Your task to perform on an android device: Clear the shopping cart on amazon.com. Add macbook to the cart on amazon.com Image 0: 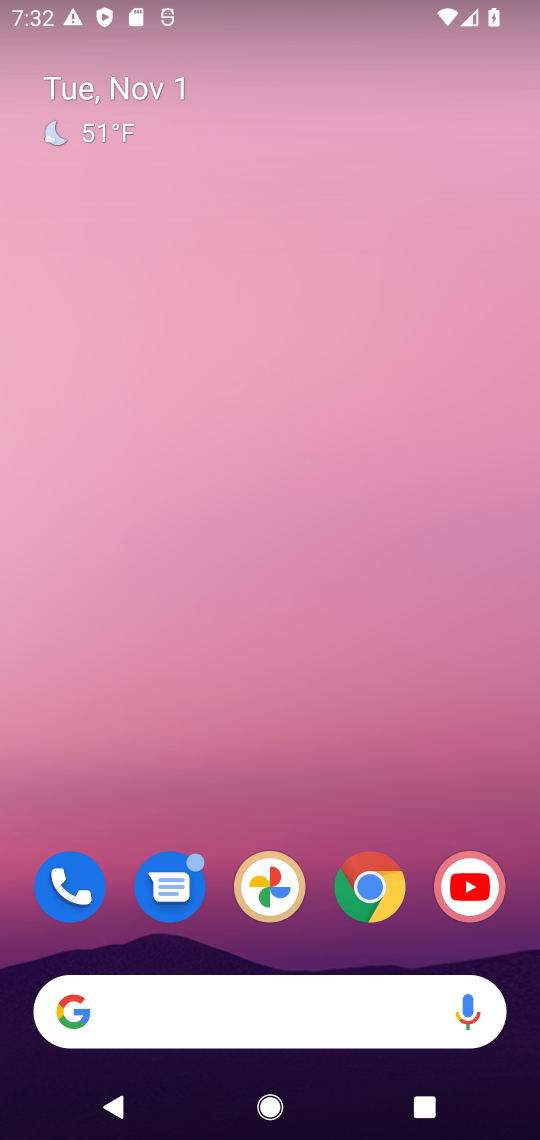
Step 0: drag from (193, 979) to (283, 353)
Your task to perform on an android device: Clear the shopping cart on amazon.com. Add macbook to the cart on amazon.com Image 1: 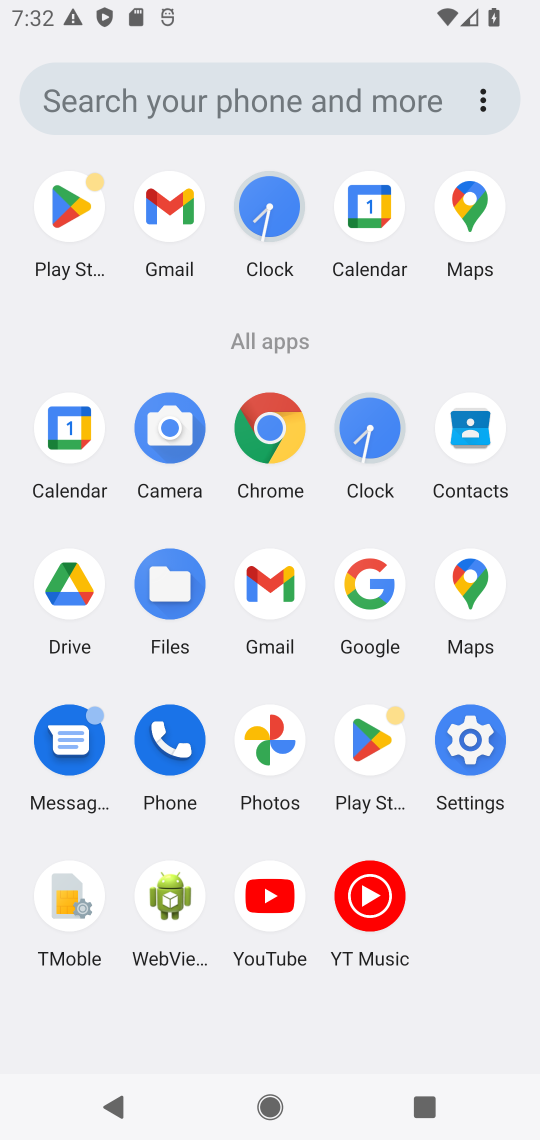
Step 1: click (359, 579)
Your task to perform on an android device: Clear the shopping cart on amazon.com. Add macbook to the cart on amazon.com Image 2: 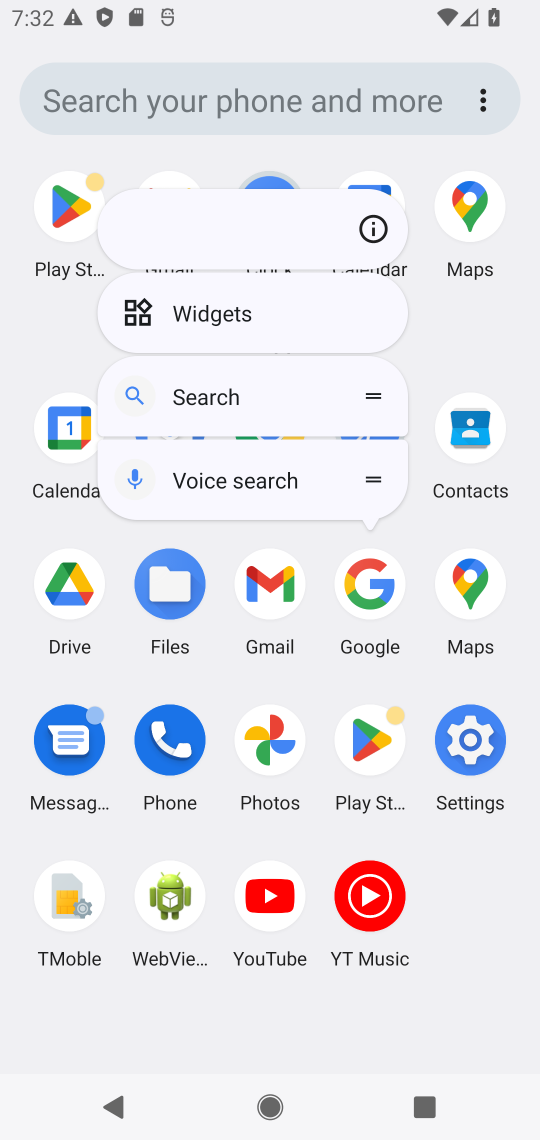
Step 2: click (359, 579)
Your task to perform on an android device: Clear the shopping cart on amazon.com. Add macbook to the cart on amazon.com Image 3: 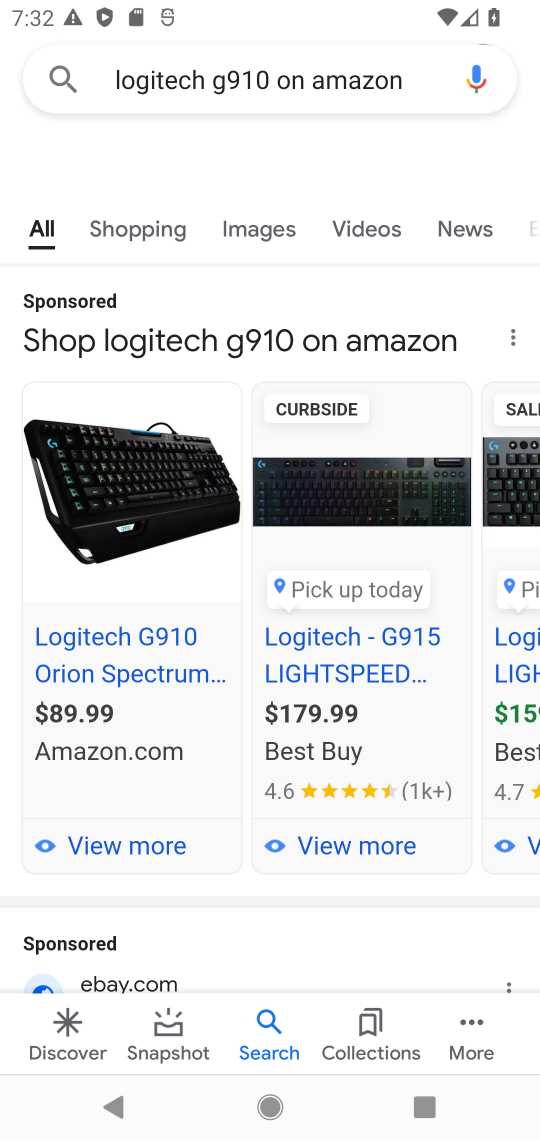
Step 3: click (245, 77)
Your task to perform on an android device: Clear the shopping cart on amazon.com. Add macbook to the cart on amazon.com Image 4: 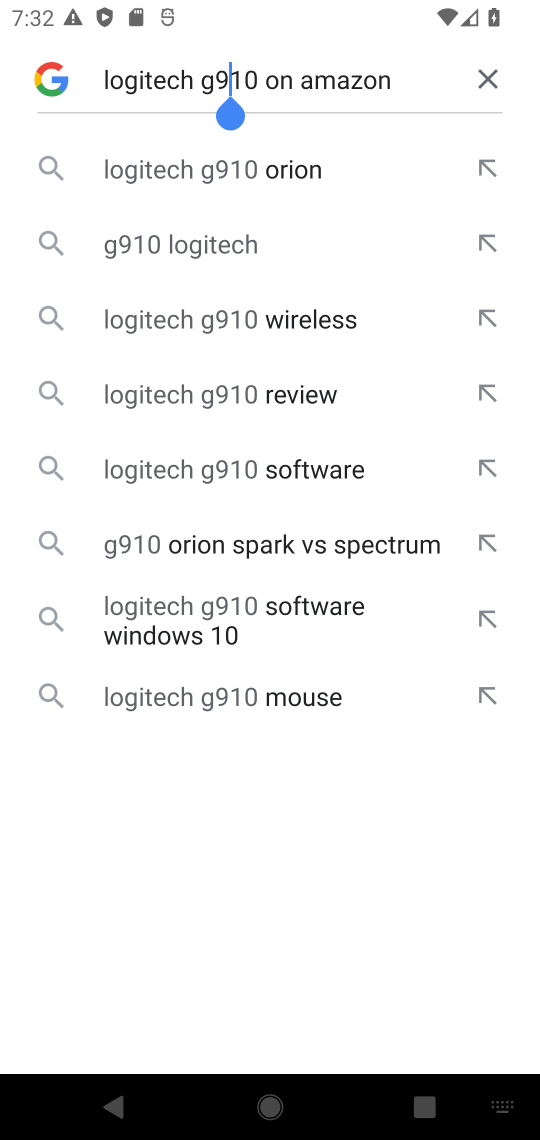
Step 4: click (477, 78)
Your task to perform on an android device: Clear the shopping cart on amazon.com. Add macbook to the cart on amazon.com Image 5: 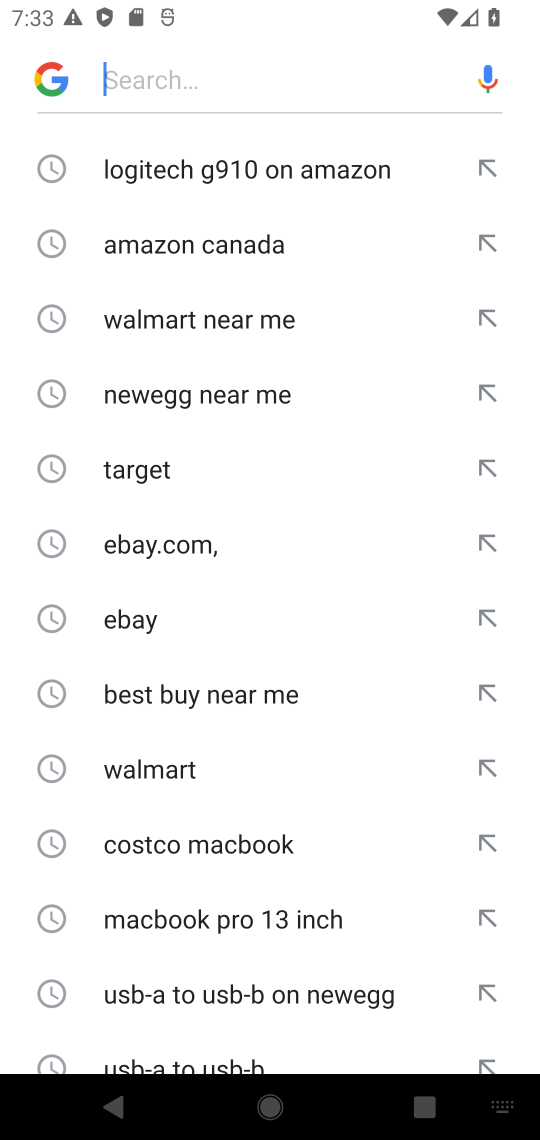
Step 5: click (201, 247)
Your task to perform on an android device: Clear the shopping cart on amazon.com. Add macbook to the cart on amazon.com Image 6: 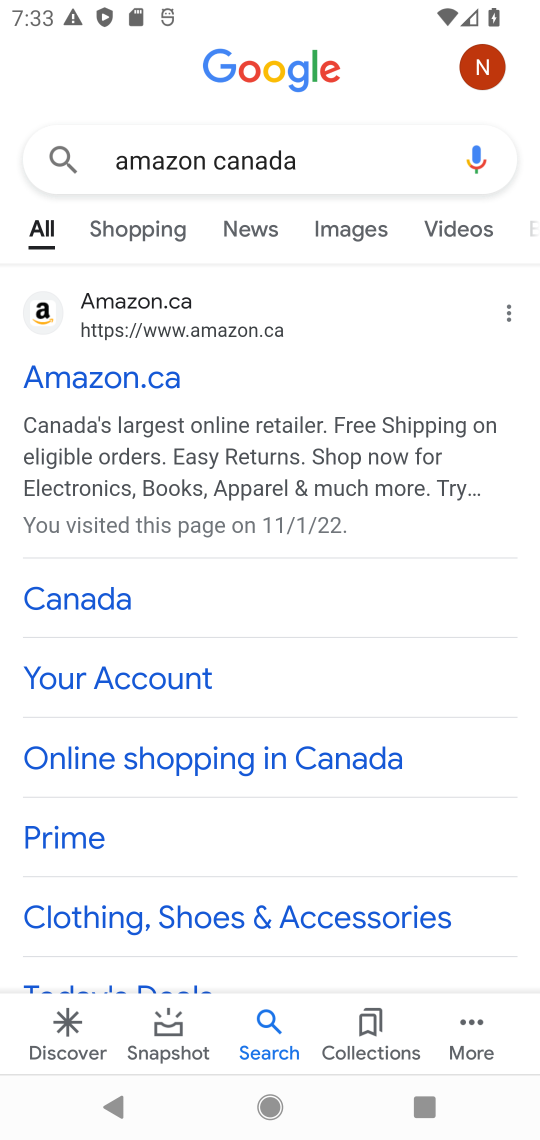
Step 6: click (112, 371)
Your task to perform on an android device: Clear the shopping cart on amazon.com. Add macbook to the cart on amazon.com Image 7: 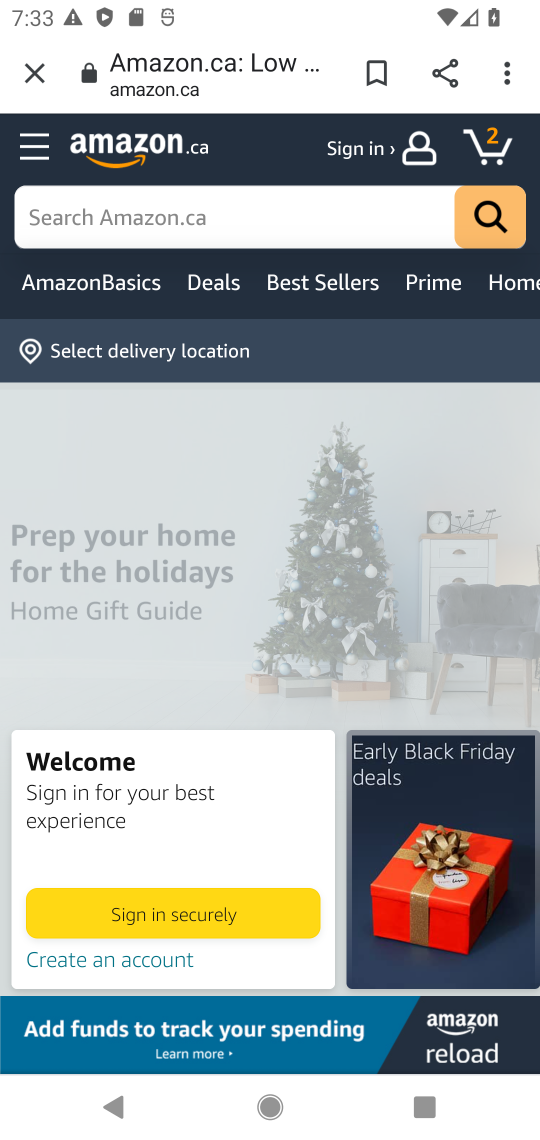
Step 7: click (273, 213)
Your task to perform on an android device: Clear the shopping cart on amazon.com. Add macbook to the cart on amazon.com Image 8: 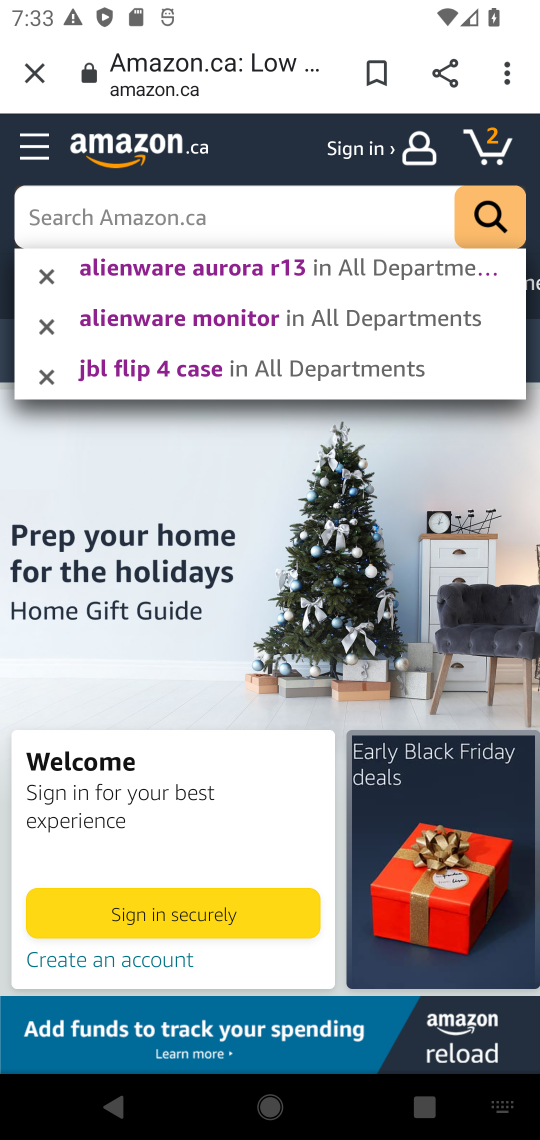
Step 8: type ""
Your task to perform on an android device: Clear the shopping cart on amazon.com. Add macbook to the cart on amazon.com Image 9: 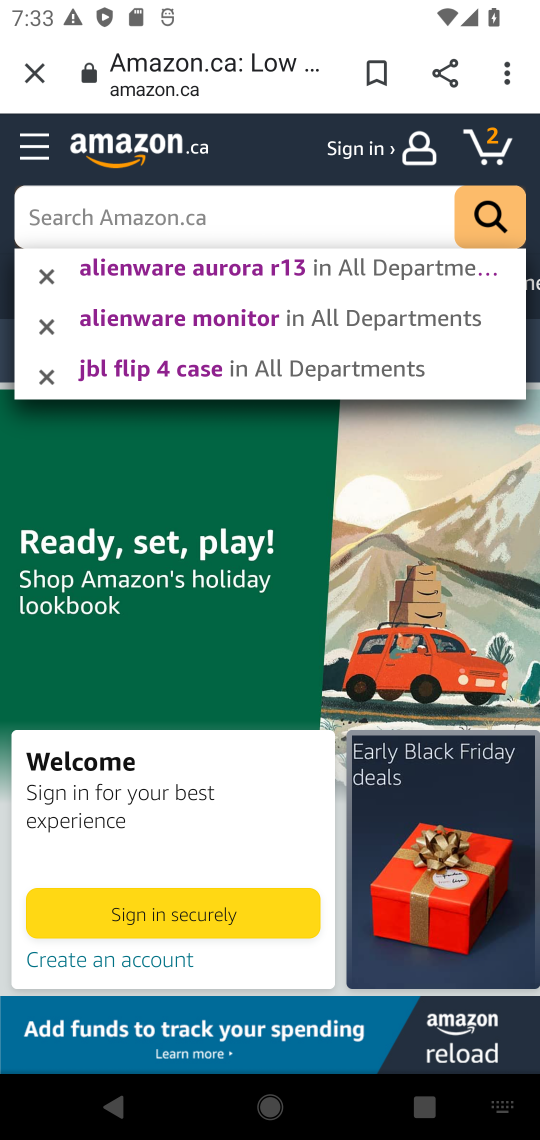
Step 9: type "macbook "
Your task to perform on an android device: Clear the shopping cart on amazon.com. Add macbook to the cart on amazon.com Image 10: 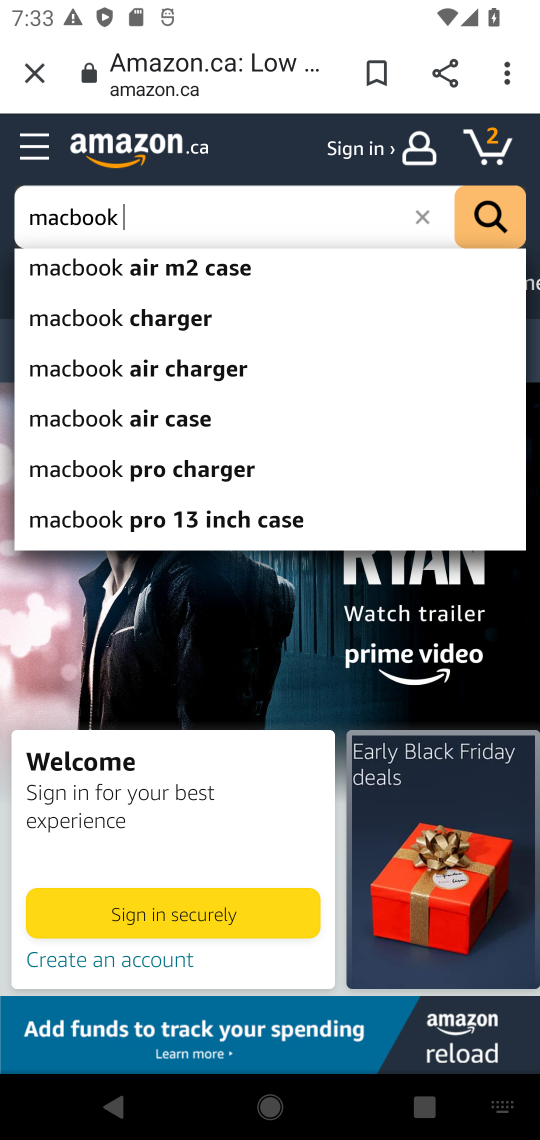
Step 10: click (123, 275)
Your task to perform on an android device: Clear the shopping cart on amazon.com. Add macbook to the cart on amazon.com Image 11: 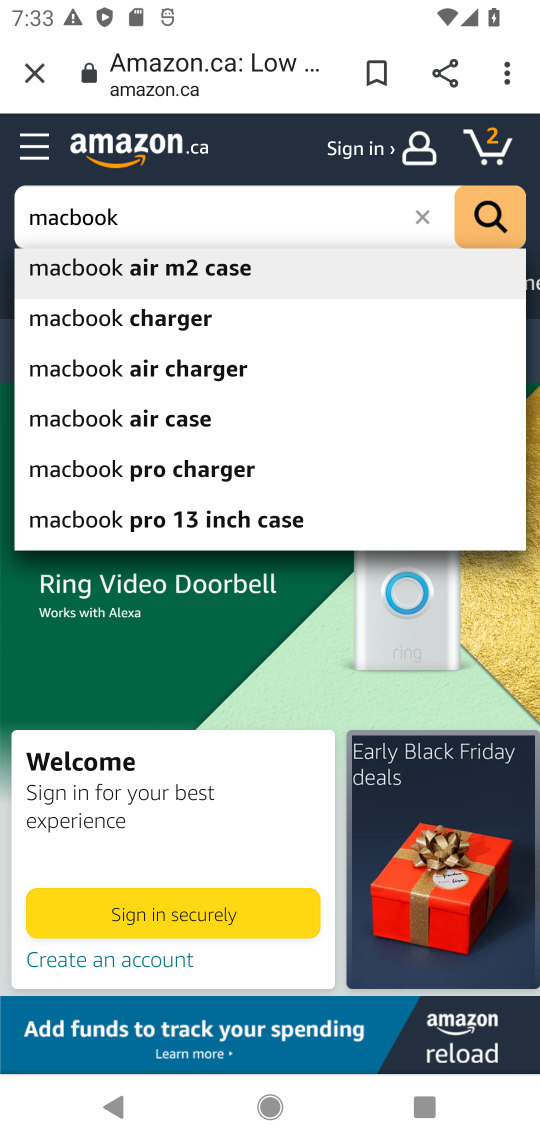
Step 11: click (487, 212)
Your task to perform on an android device: Clear the shopping cart on amazon.com. Add macbook to the cart on amazon.com Image 12: 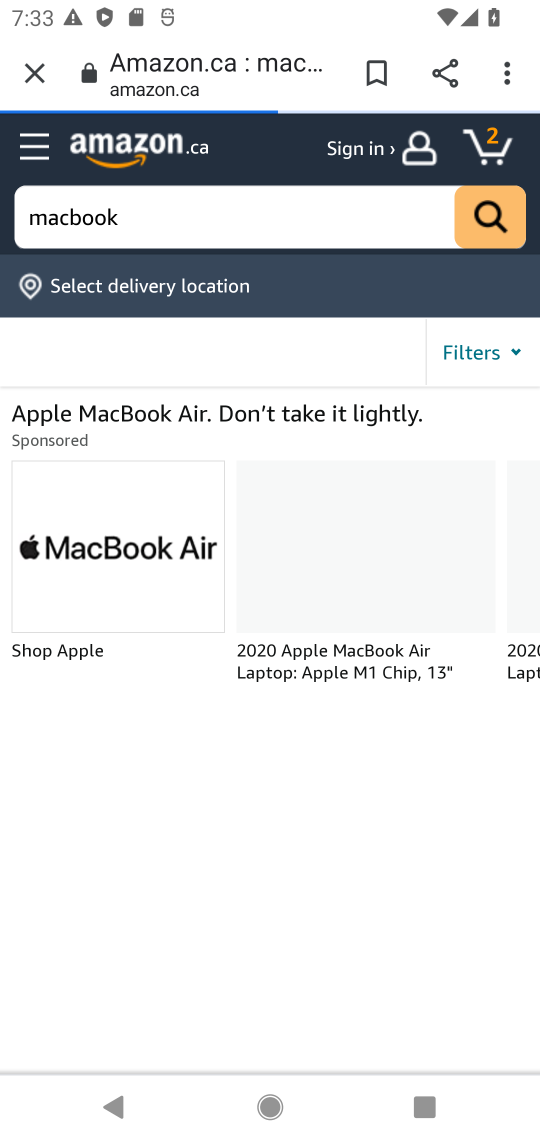
Step 12: click (487, 212)
Your task to perform on an android device: Clear the shopping cart on amazon.com. Add macbook to the cart on amazon.com Image 13: 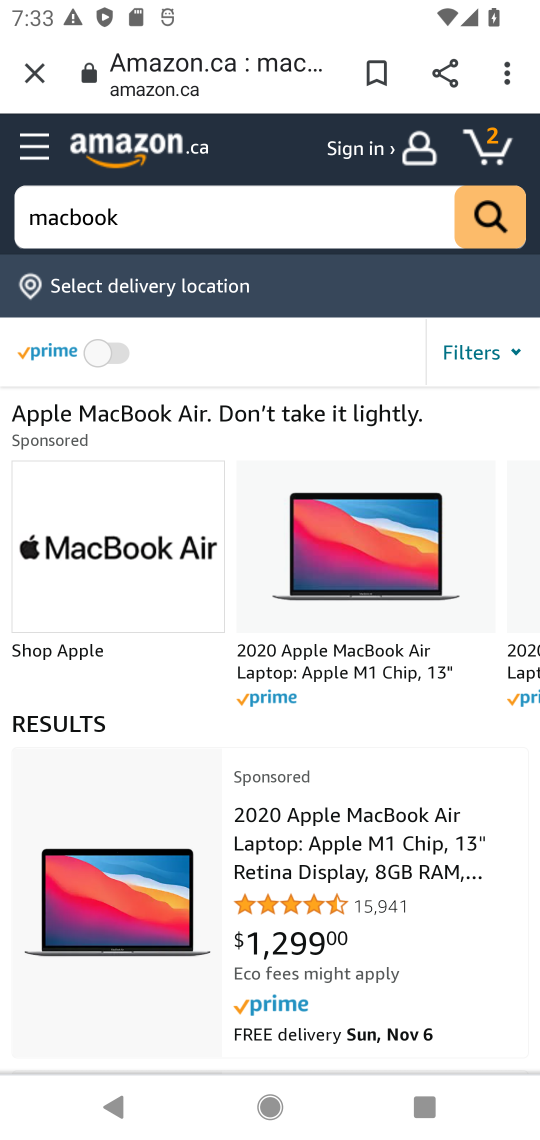
Step 13: drag from (320, 1077) to (438, 595)
Your task to perform on an android device: Clear the shopping cart on amazon.com. Add macbook to the cart on amazon.com Image 14: 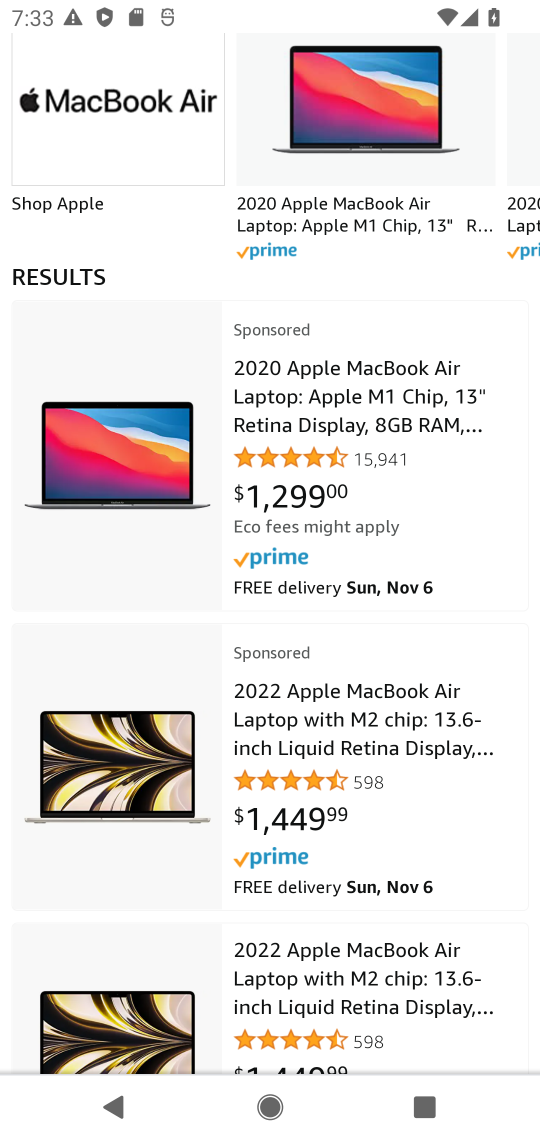
Step 14: click (365, 420)
Your task to perform on an android device: Clear the shopping cart on amazon.com. Add macbook to the cart on amazon.com Image 15: 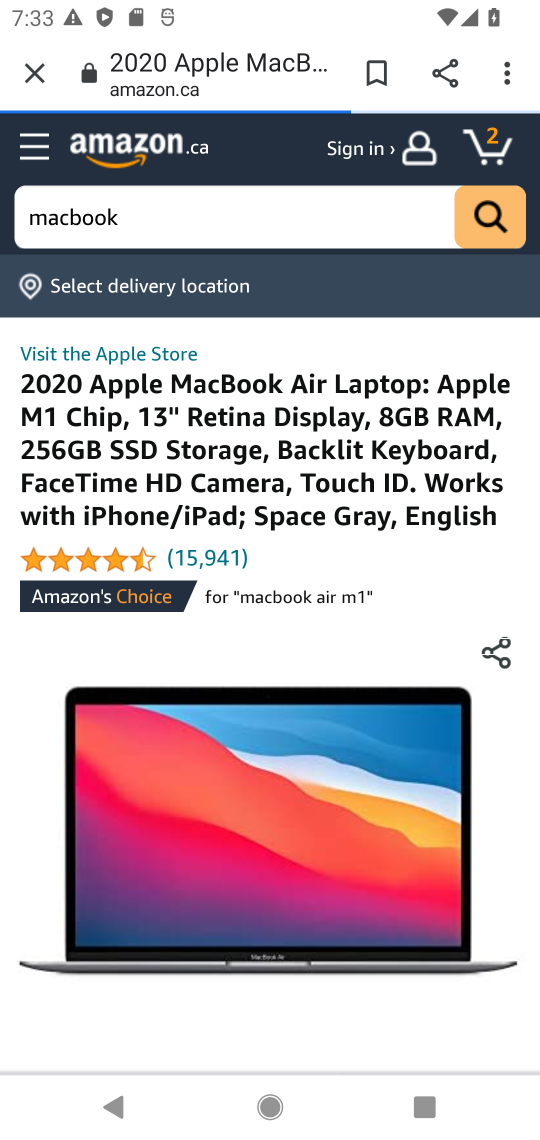
Step 15: drag from (350, 776) to (342, 236)
Your task to perform on an android device: Clear the shopping cart on amazon.com. Add macbook to the cart on amazon.com Image 16: 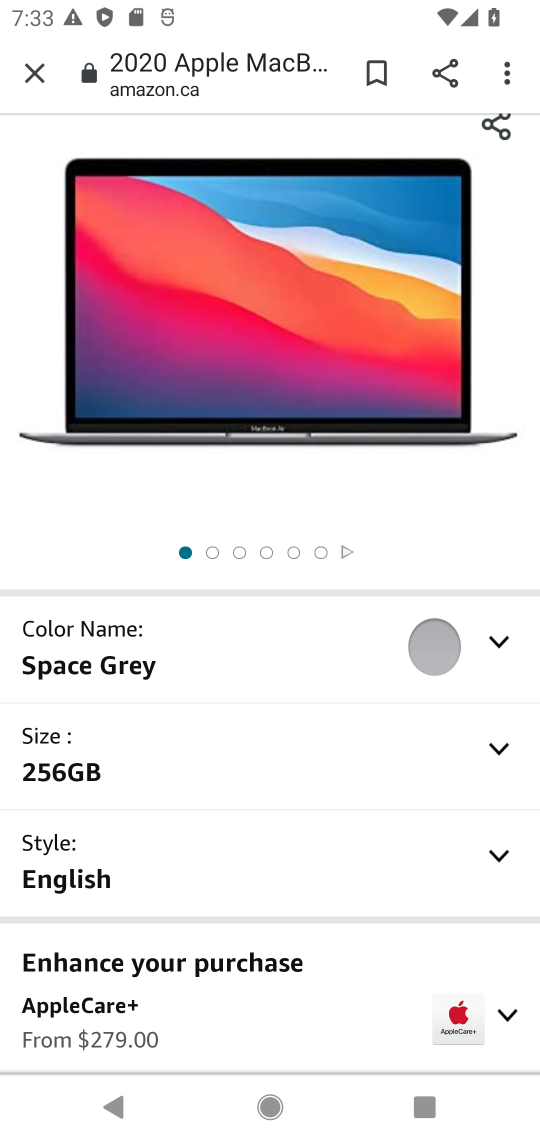
Step 16: drag from (219, 926) to (287, 304)
Your task to perform on an android device: Clear the shopping cart on amazon.com. Add macbook to the cart on amazon.com Image 17: 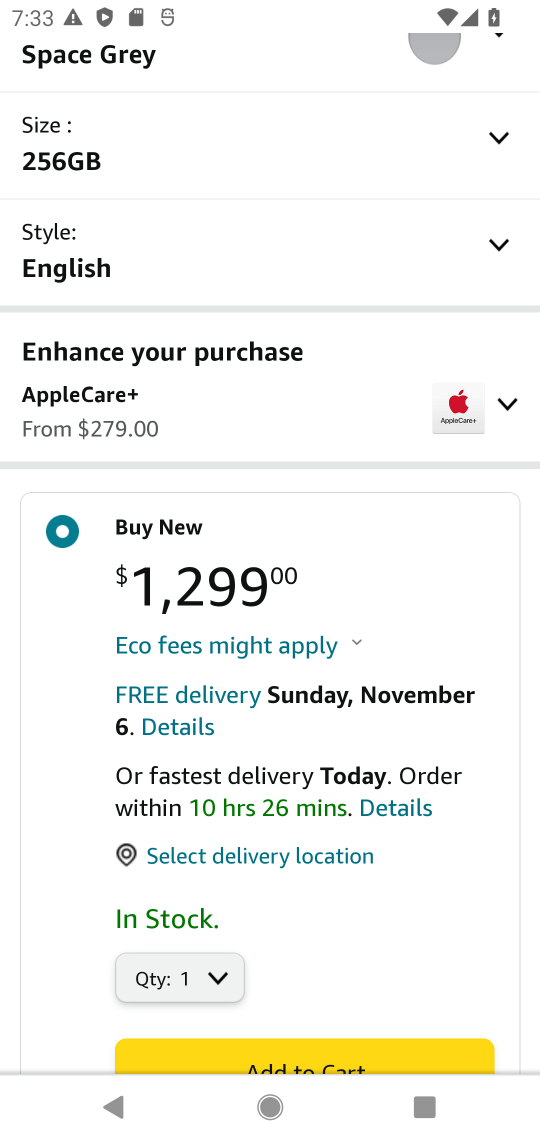
Step 17: drag from (268, 865) to (294, 483)
Your task to perform on an android device: Clear the shopping cart on amazon.com. Add macbook to the cart on amazon.com Image 18: 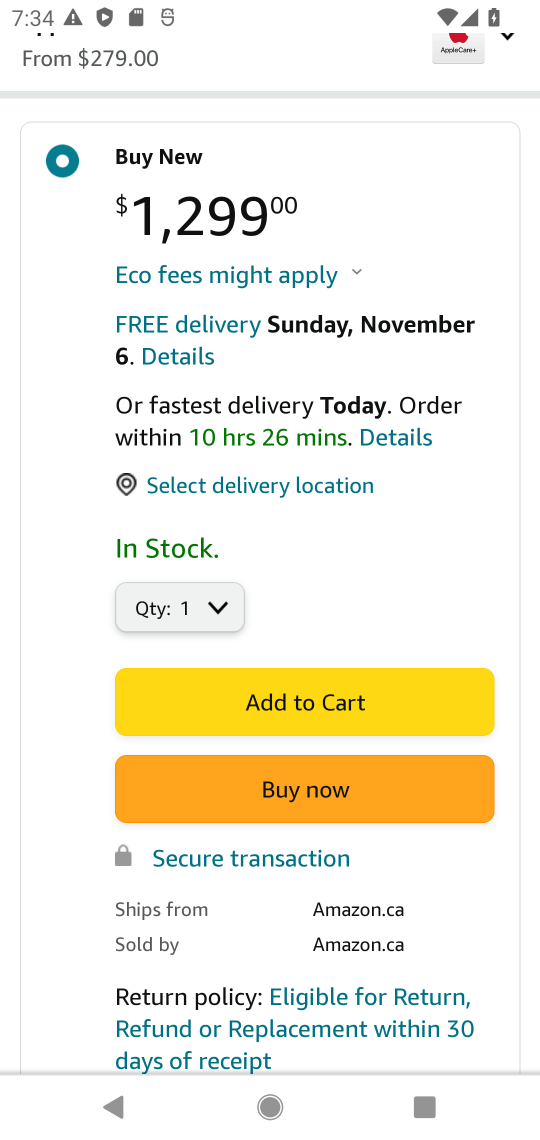
Step 18: click (397, 678)
Your task to perform on an android device: Clear the shopping cart on amazon.com. Add macbook to the cart on amazon.com Image 19: 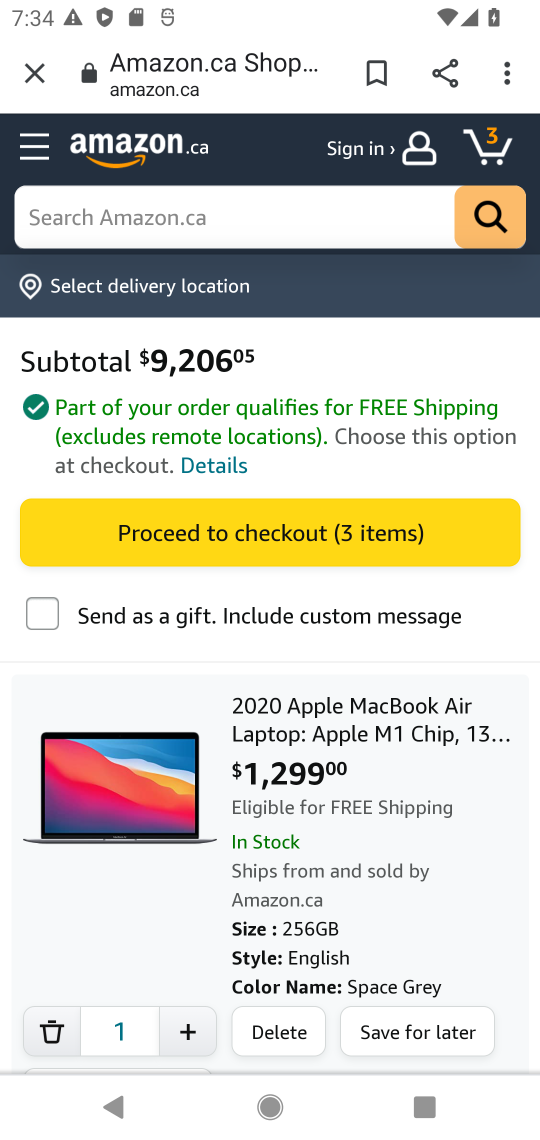
Step 19: task complete